Your task to perform on an android device: all mails in gmail Image 0: 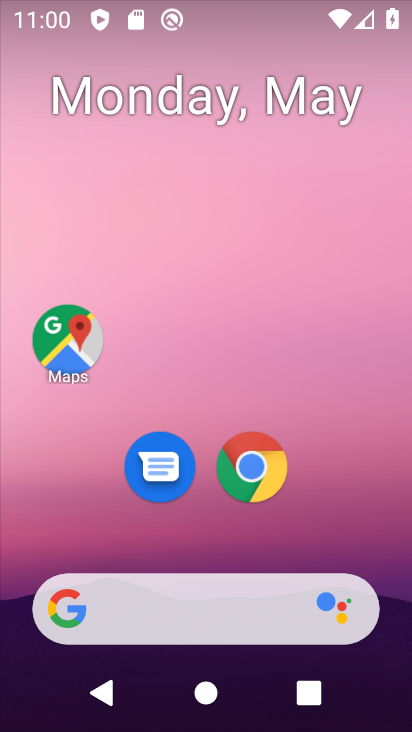
Step 0: drag from (321, 541) to (301, 77)
Your task to perform on an android device: all mails in gmail Image 1: 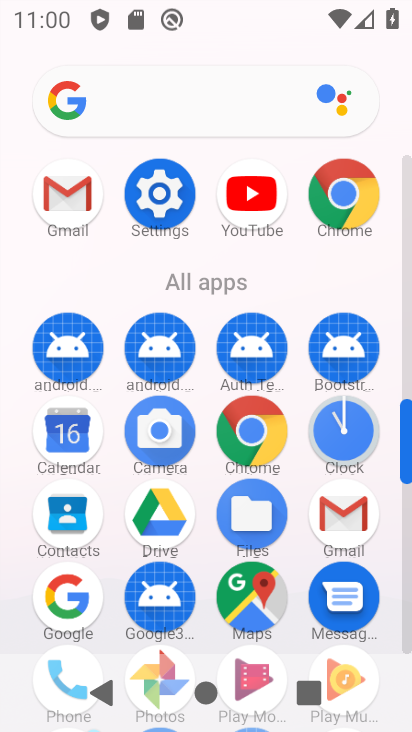
Step 1: click (74, 203)
Your task to perform on an android device: all mails in gmail Image 2: 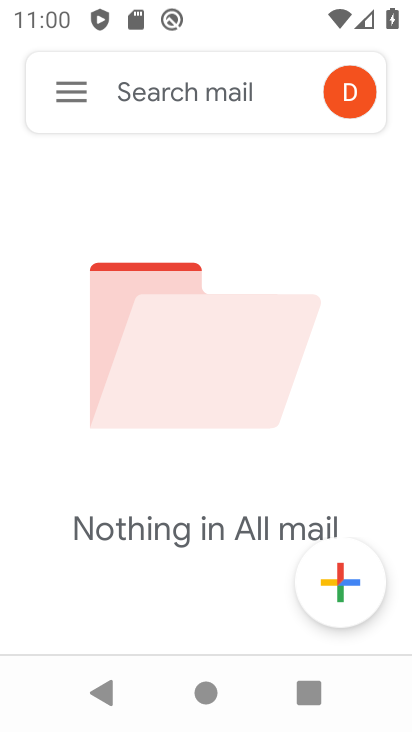
Step 2: click (72, 91)
Your task to perform on an android device: all mails in gmail Image 3: 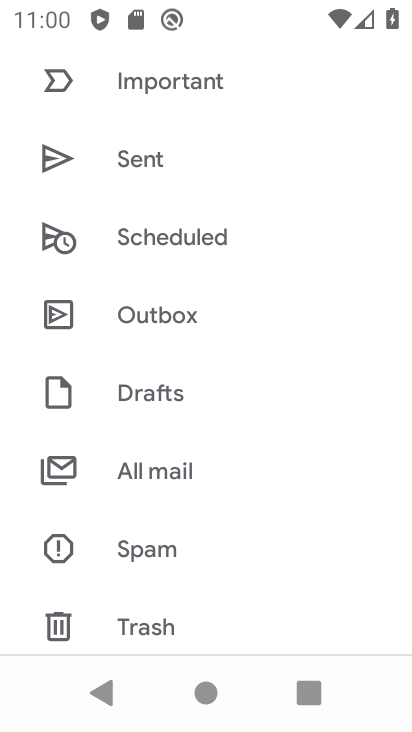
Step 3: click (138, 488)
Your task to perform on an android device: all mails in gmail Image 4: 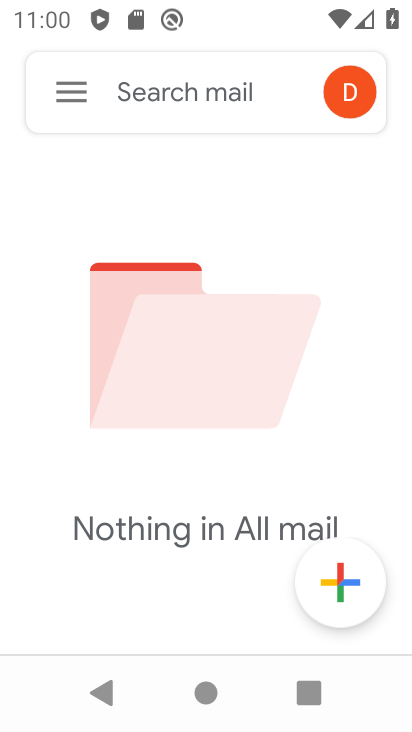
Step 4: task complete